Your task to perform on an android device: Do I have any events today? Image 0: 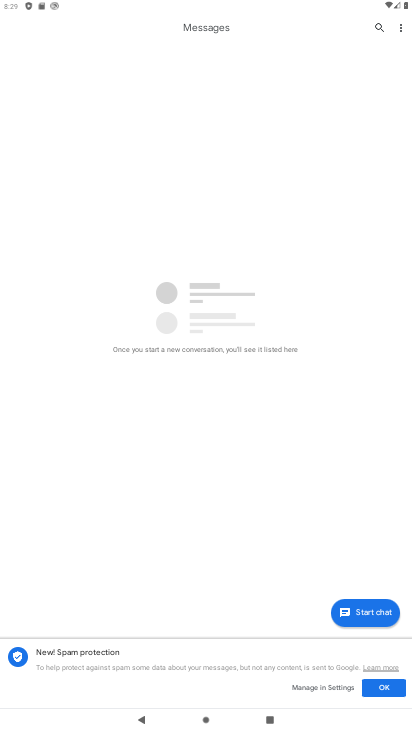
Step 0: press home button
Your task to perform on an android device: Do I have any events today? Image 1: 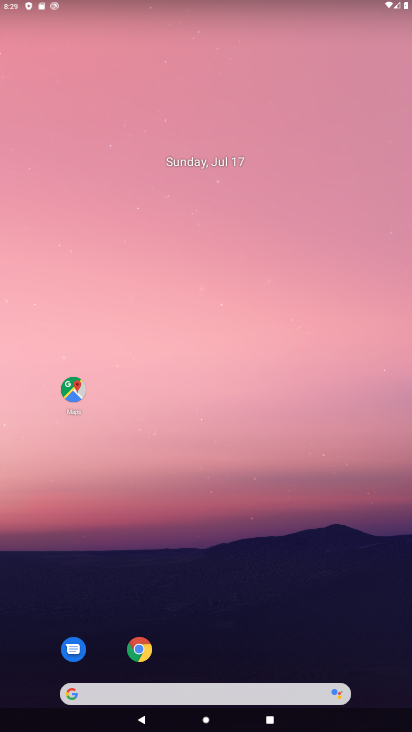
Step 1: drag from (197, 673) to (242, 139)
Your task to perform on an android device: Do I have any events today? Image 2: 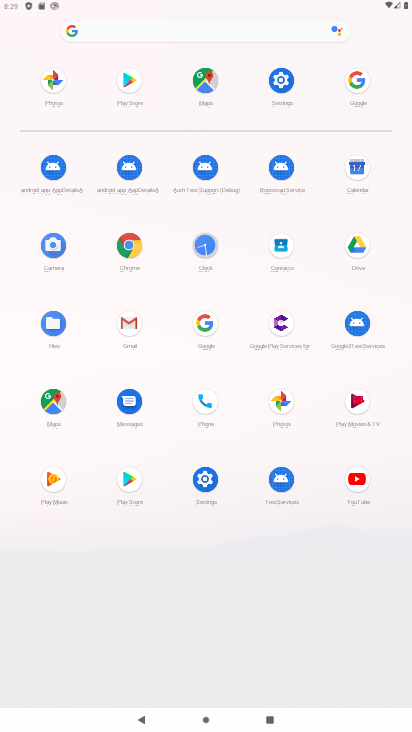
Step 2: click (360, 166)
Your task to perform on an android device: Do I have any events today? Image 3: 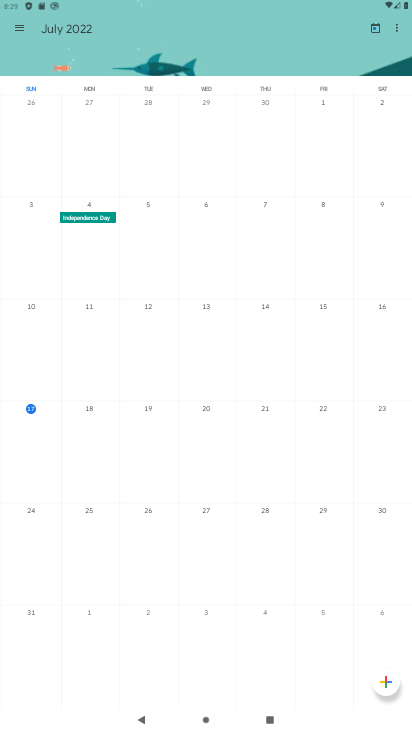
Step 3: click (30, 409)
Your task to perform on an android device: Do I have any events today? Image 4: 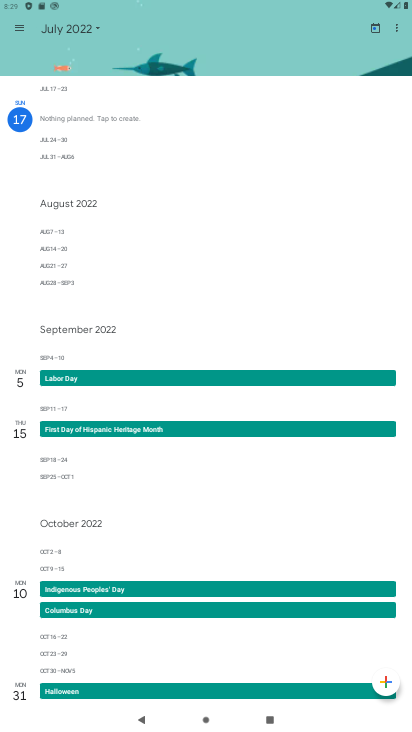
Step 4: task complete